Your task to perform on an android device: allow notifications from all sites in the chrome app Image 0: 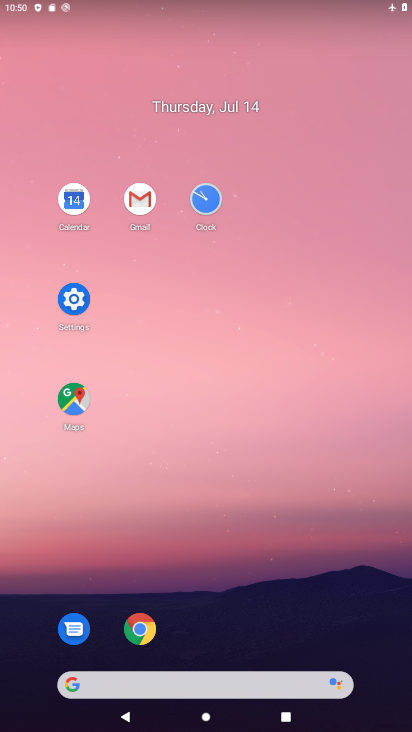
Step 0: click (144, 621)
Your task to perform on an android device: allow notifications from all sites in the chrome app Image 1: 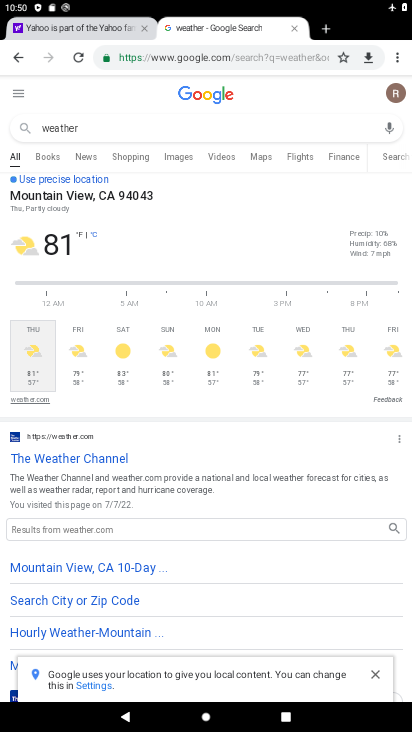
Step 1: click (402, 56)
Your task to perform on an android device: allow notifications from all sites in the chrome app Image 2: 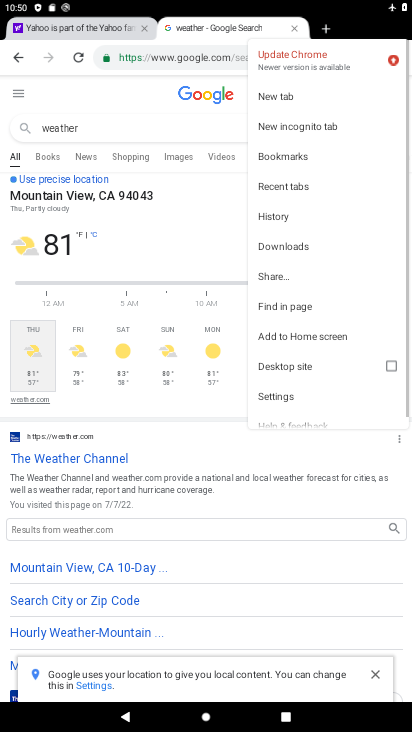
Step 2: click (315, 394)
Your task to perform on an android device: allow notifications from all sites in the chrome app Image 3: 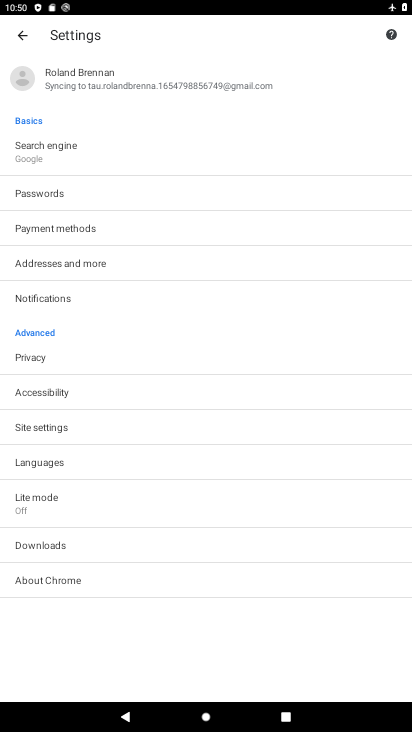
Step 3: drag from (110, 514) to (132, 224)
Your task to perform on an android device: allow notifications from all sites in the chrome app Image 4: 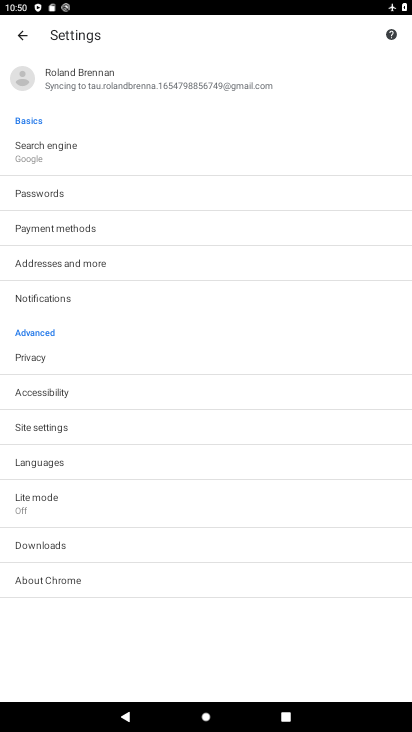
Step 4: click (109, 298)
Your task to perform on an android device: allow notifications from all sites in the chrome app Image 5: 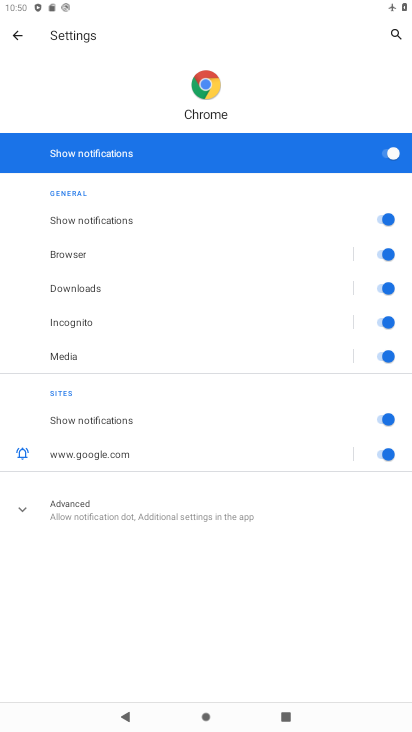
Step 5: task complete